Your task to perform on an android device: open a bookmark in the chrome app Image 0: 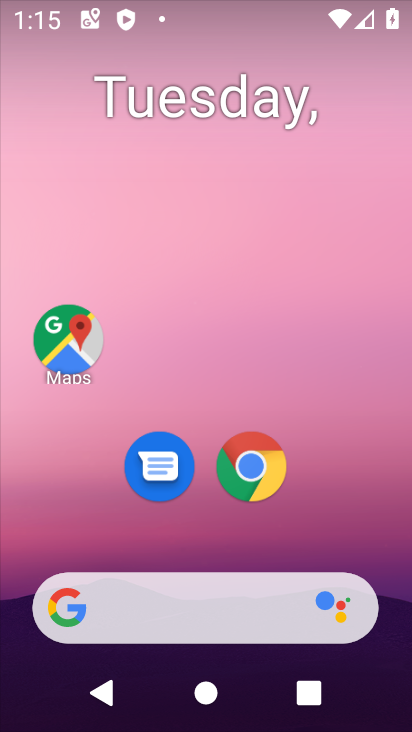
Step 0: click (247, 483)
Your task to perform on an android device: open a bookmark in the chrome app Image 1: 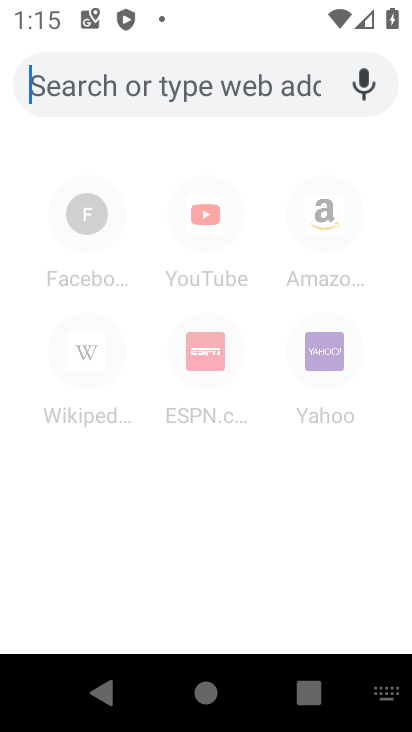
Step 1: click (88, 512)
Your task to perform on an android device: open a bookmark in the chrome app Image 2: 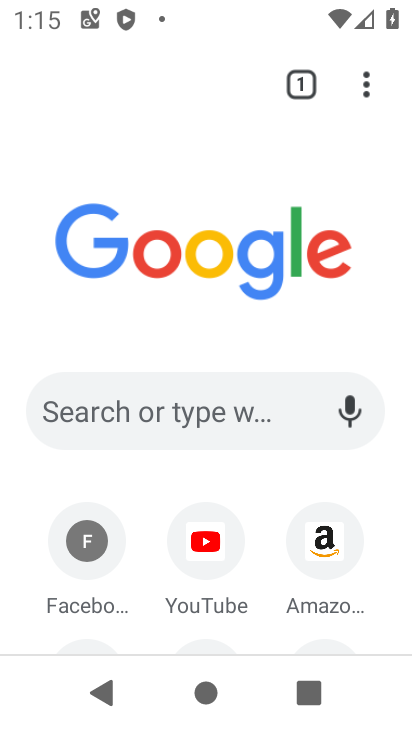
Step 2: task complete